Your task to perform on an android device: turn off priority inbox in the gmail app Image 0: 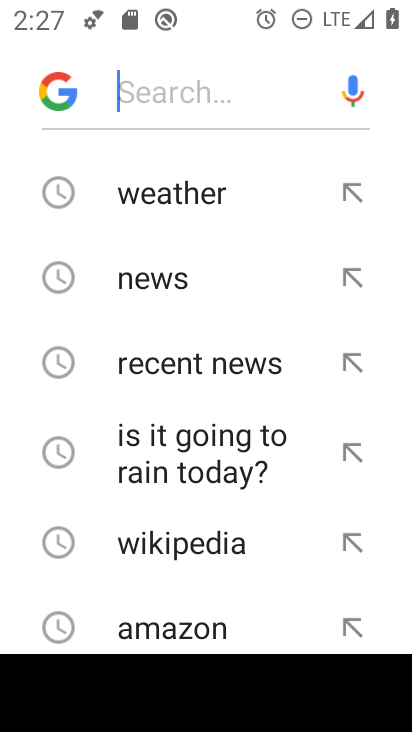
Step 0: press home button
Your task to perform on an android device: turn off priority inbox in the gmail app Image 1: 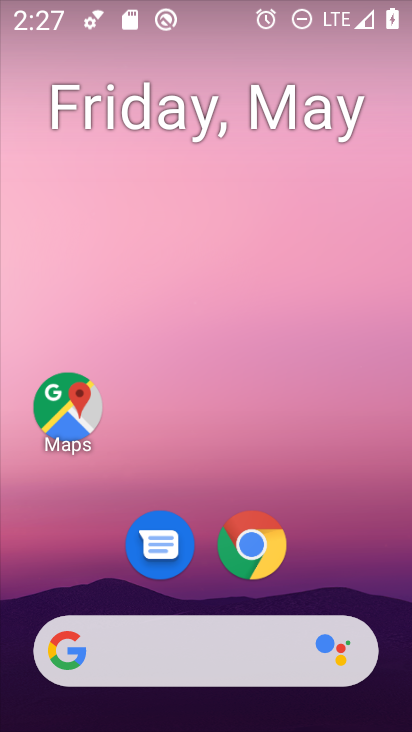
Step 1: drag from (210, 551) to (253, 260)
Your task to perform on an android device: turn off priority inbox in the gmail app Image 2: 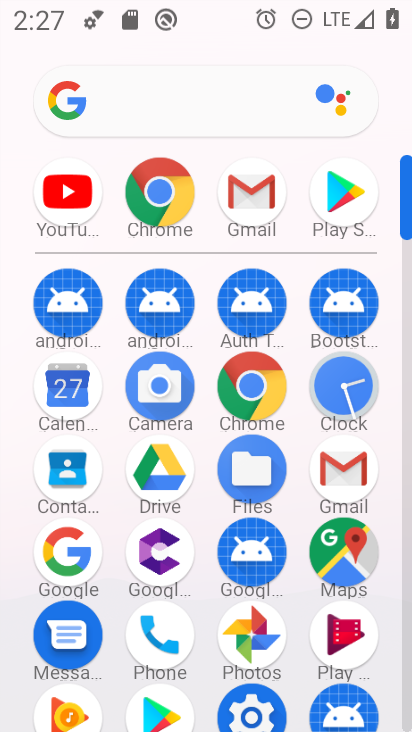
Step 2: click (256, 195)
Your task to perform on an android device: turn off priority inbox in the gmail app Image 3: 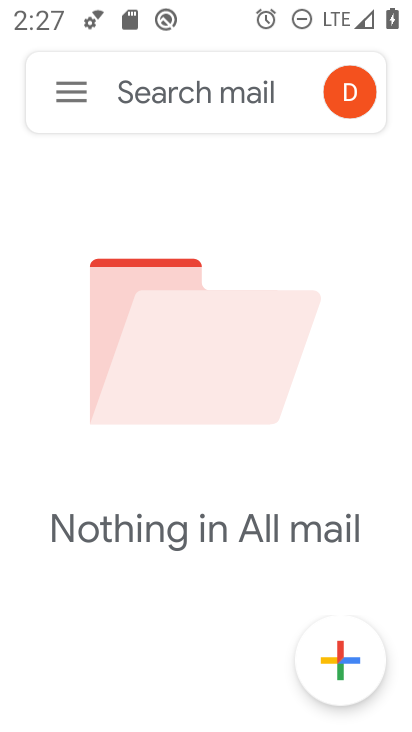
Step 3: click (64, 92)
Your task to perform on an android device: turn off priority inbox in the gmail app Image 4: 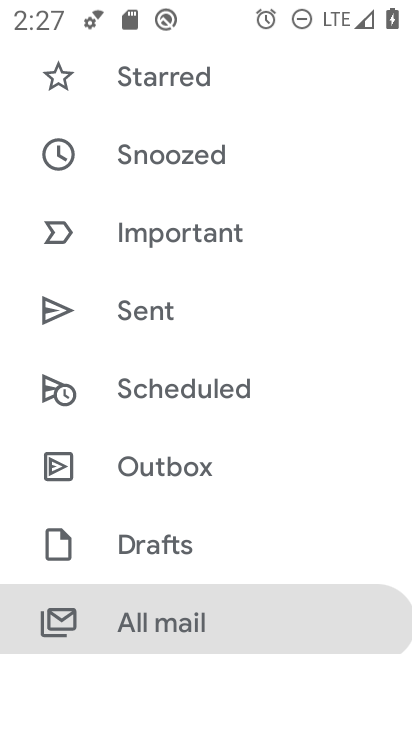
Step 4: drag from (208, 577) to (205, 152)
Your task to perform on an android device: turn off priority inbox in the gmail app Image 5: 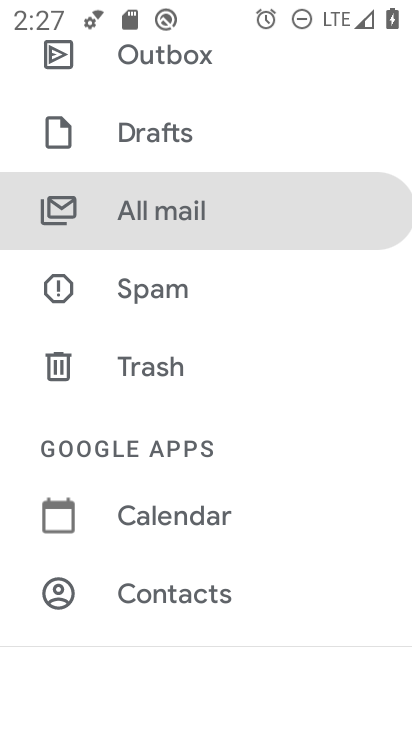
Step 5: drag from (204, 579) to (206, 261)
Your task to perform on an android device: turn off priority inbox in the gmail app Image 6: 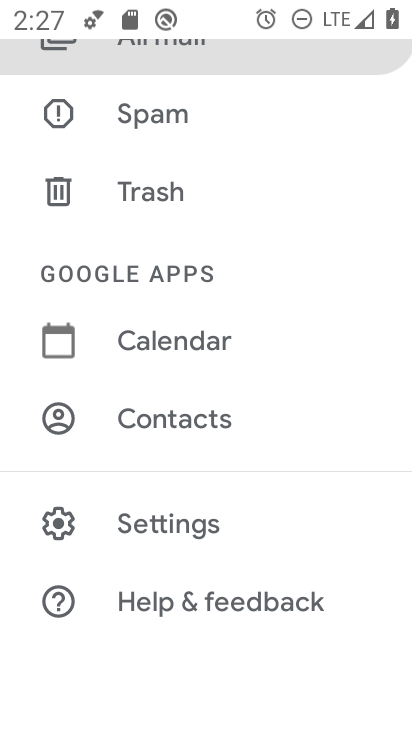
Step 6: click (159, 535)
Your task to perform on an android device: turn off priority inbox in the gmail app Image 7: 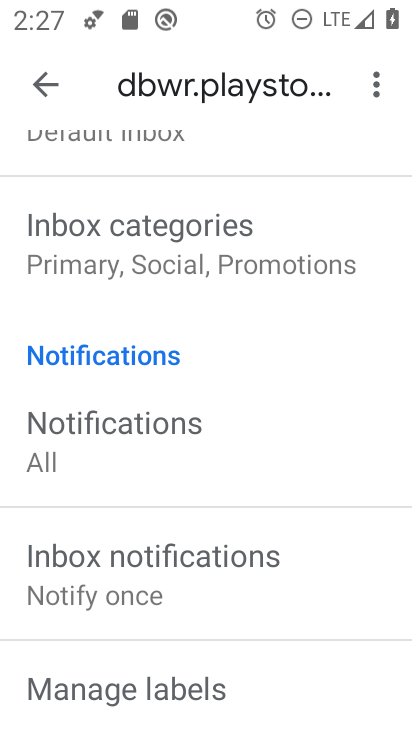
Step 7: click (139, 423)
Your task to perform on an android device: turn off priority inbox in the gmail app Image 8: 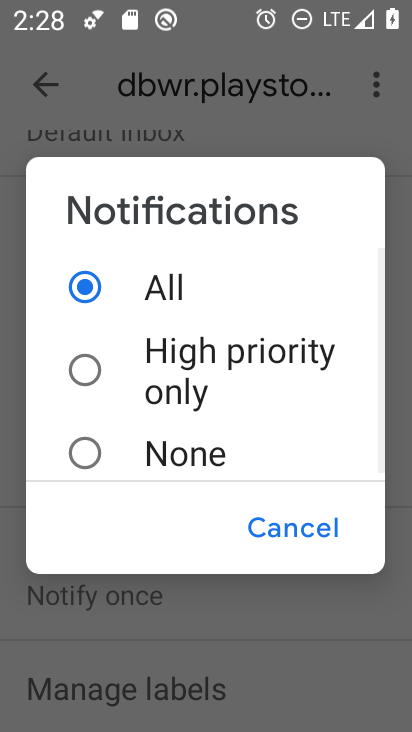
Step 8: click (325, 537)
Your task to perform on an android device: turn off priority inbox in the gmail app Image 9: 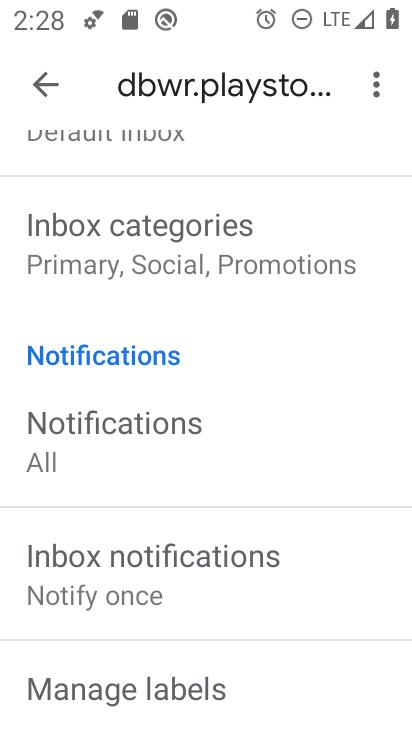
Step 9: drag from (255, 262) to (284, 574)
Your task to perform on an android device: turn off priority inbox in the gmail app Image 10: 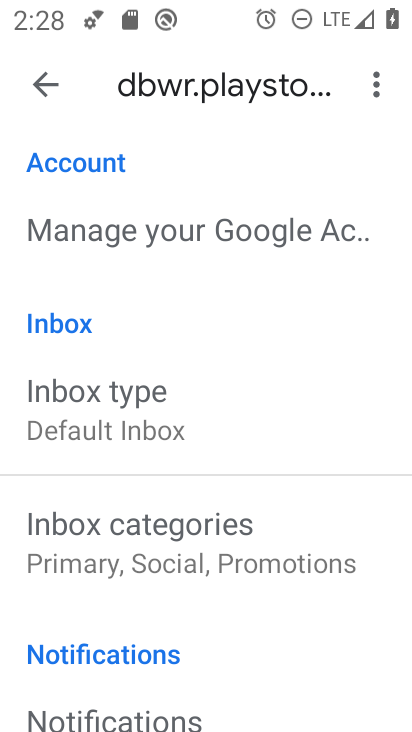
Step 10: drag from (139, 183) to (183, 546)
Your task to perform on an android device: turn off priority inbox in the gmail app Image 11: 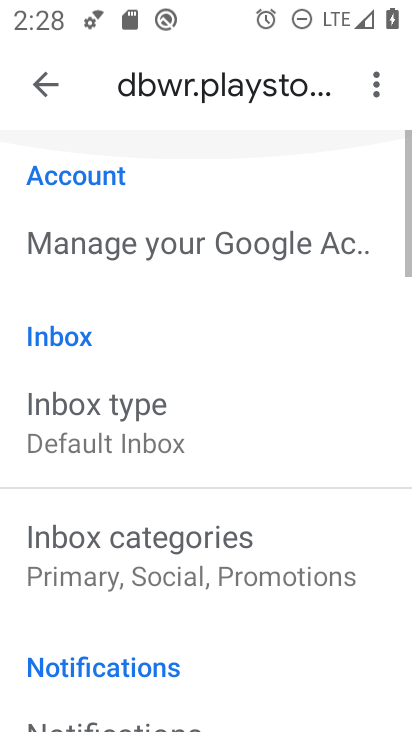
Step 11: click (144, 441)
Your task to perform on an android device: turn off priority inbox in the gmail app Image 12: 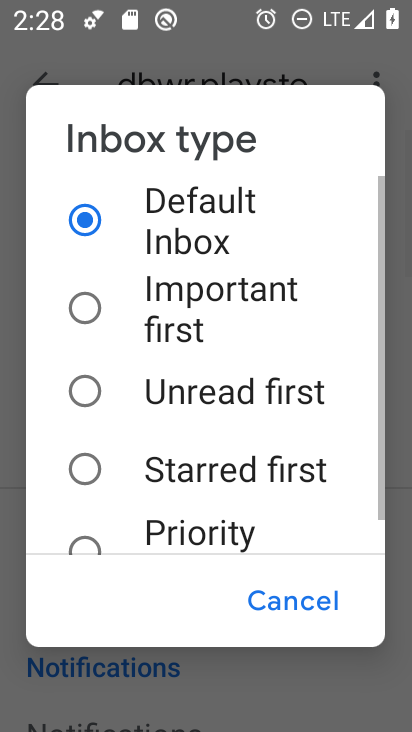
Step 12: drag from (185, 496) to (187, 217)
Your task to perform on an android device: turn off priority inbox in the gmail app Image 13: 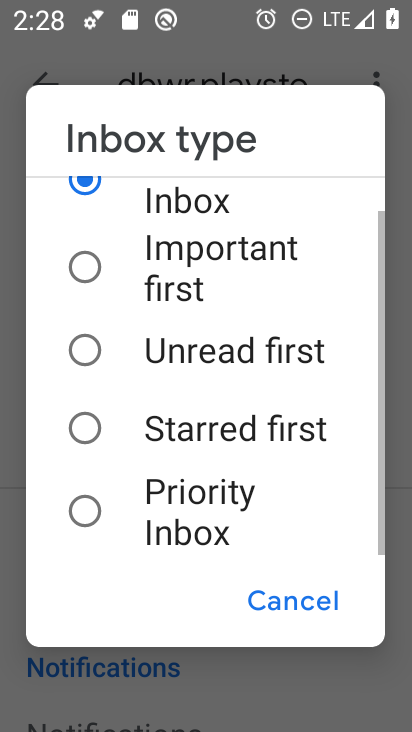
Step 13: click (171, 499)
Your task to perform on an android device: turn off priority inbox in the gmail app Image 14: 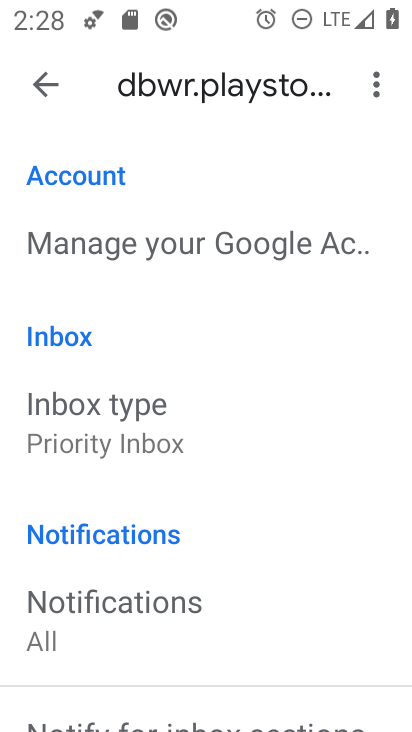
Step 14: task complete